Your task to perform on an android device: allow notifications from all sites in the chrome app Image 0: 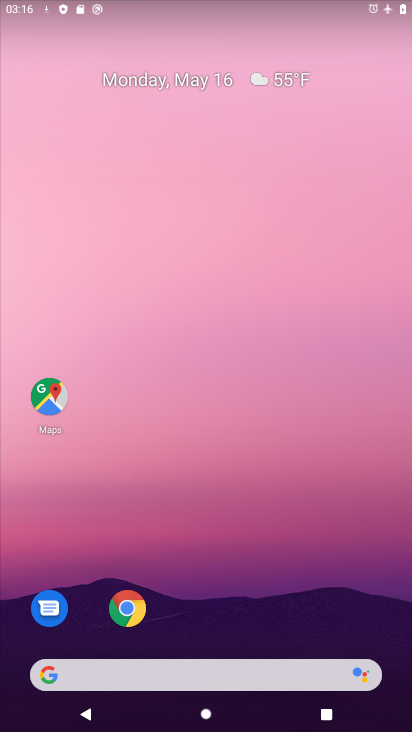
Step 0: click (134, 609)
Your task to perform on an android device: allow notifications from all sites in the chrome app Image 1: 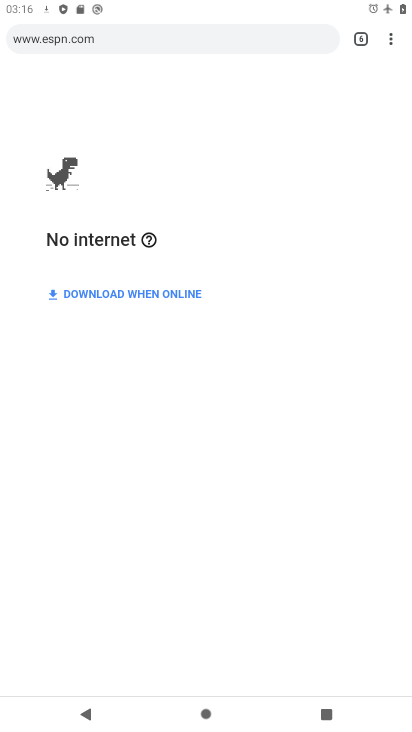
Step 1: press home button
Your task to perform on an android device: allow notifications from all sites in the chrome app Image 2: 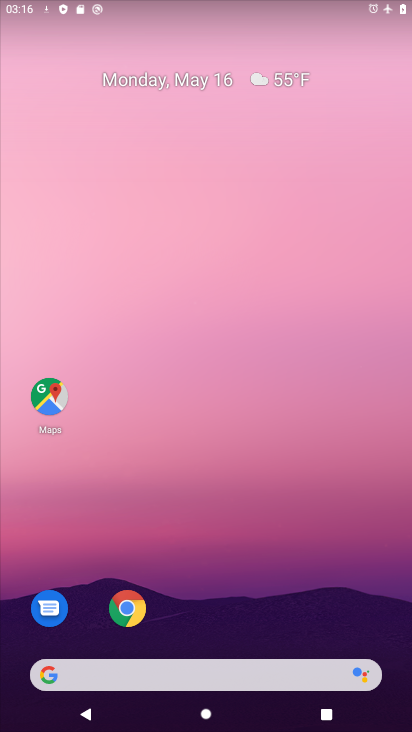
Step 2: click (121, 599)
Your task to perform on an android device: allow notifications from all sites in the chrome app Image 3: 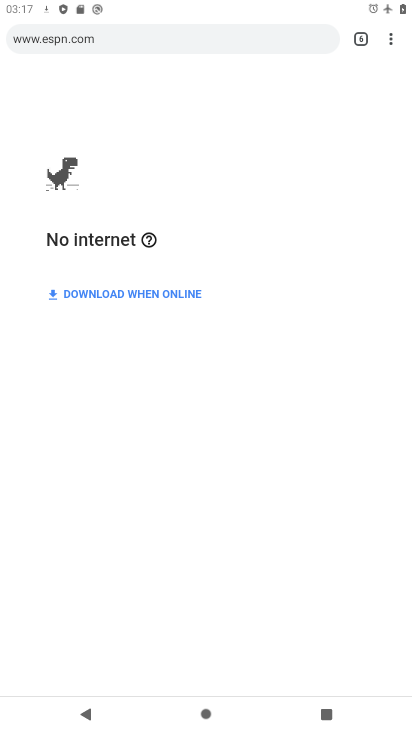
Step 3: click (389, 40)
Your task to perform on an android device: allow notifications from all sites in the chrome app Image 4: 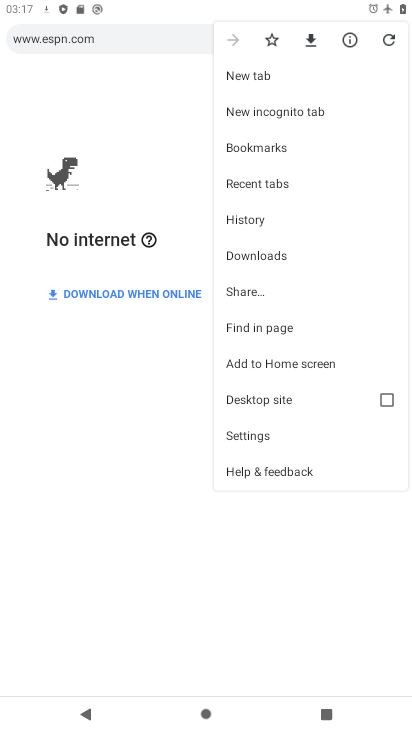
Step 4: click (270, 426)
Your task to perform on an android device: allow notifications from all sites in the chrome app Image 5: 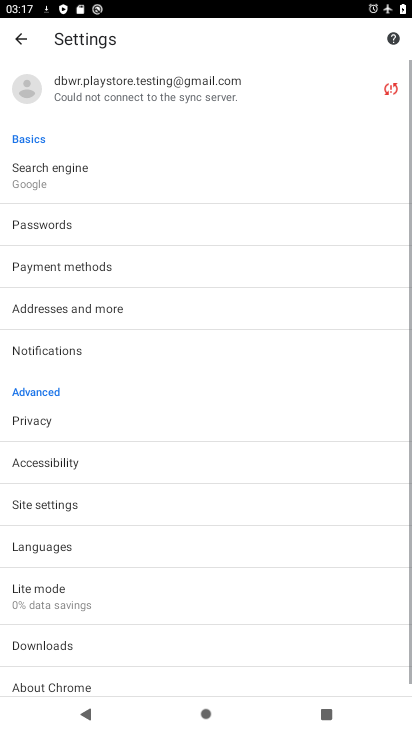
Step 5: drag from (185, 552) to (166, 245)
Your task to perform on an android device: allow notifications from all sites in the chrome app Image 6: 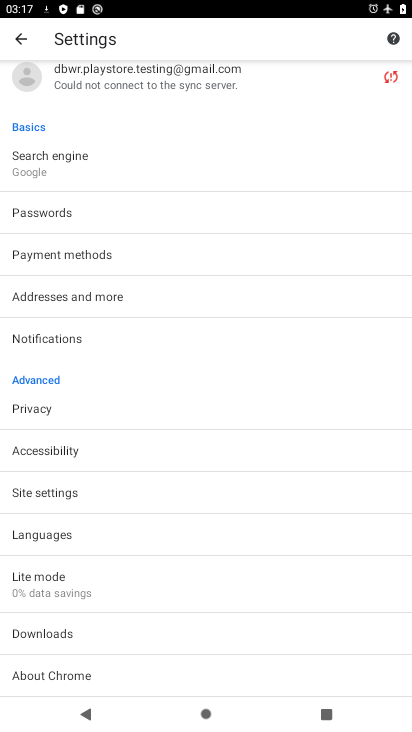
Step 6: drag from (96, 636) to (120, 336)
Your task to perform on an android device: allow notifications from all sites in the chrome app Image 7: 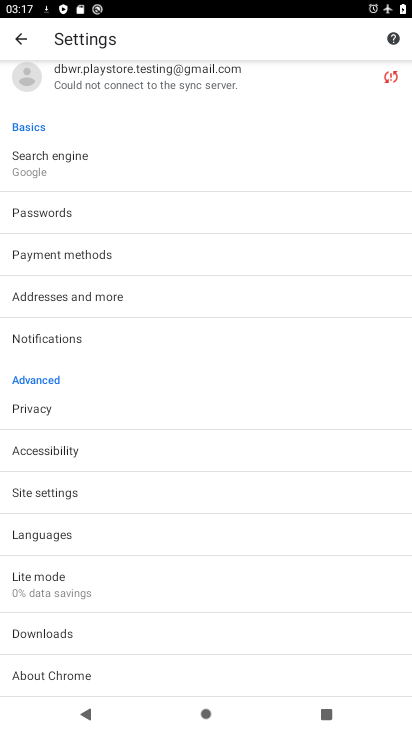
Step 7: click (63, 491)
Your task to perform on an android device: allow notifications from all sites in the chrome app Image 8: 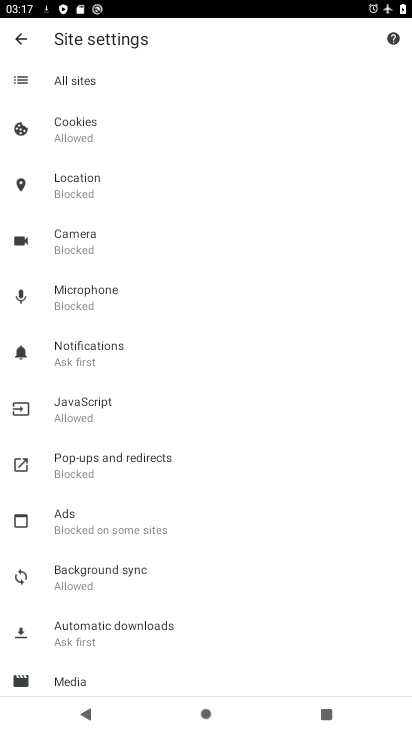
Step 8: drag from (146, 454) to (158, 400)
Your task to perform on an android device: allow notifications from all sites in the chrome app Image 9: 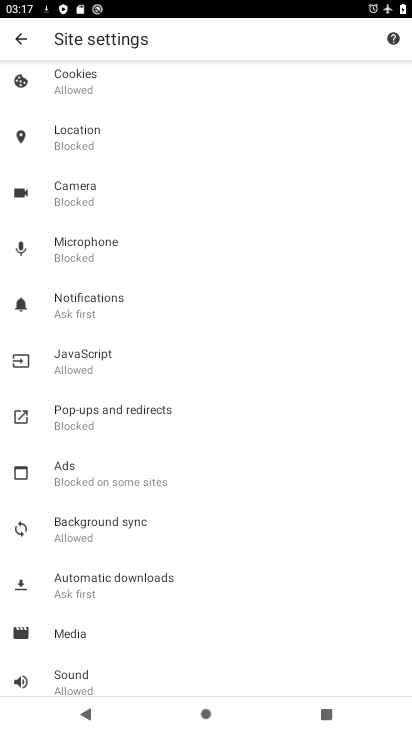
Step 9: click (115, 312)
Your task to perform on an android device: allow notifications from all sites in the chrome app Image 10: 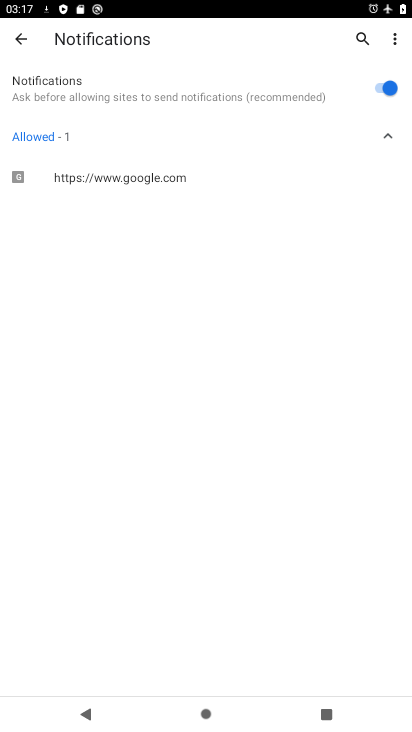
Step 10: task complete